Your task to perform on an android device: Go to ESPN.com Image 0: 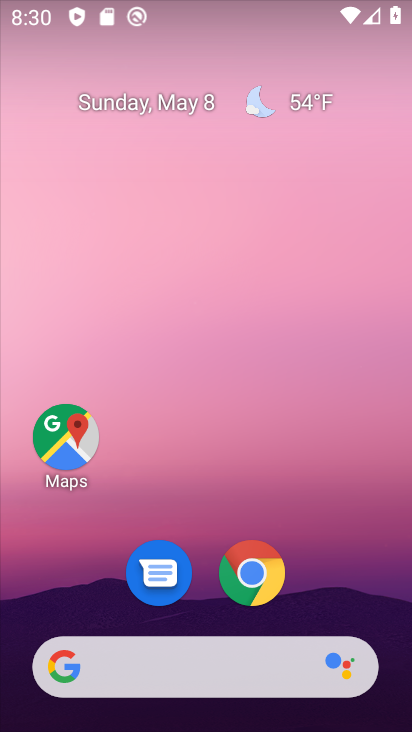
Step 0: click (247, 568)
Your task to perform on an android device: Go to ESPN.com Image 1: 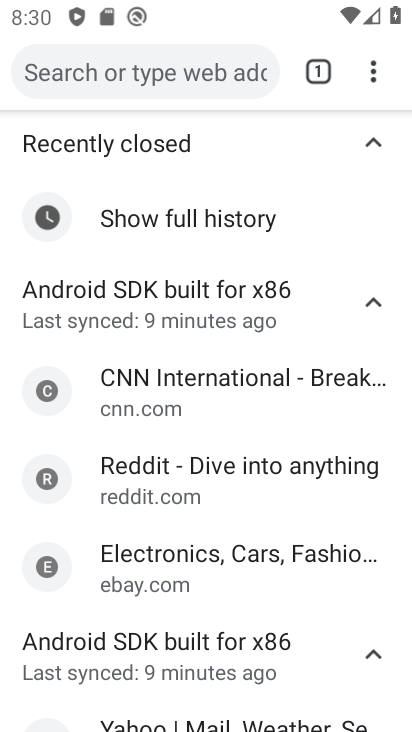
Step 1: click (196, 81)
Your task to perform on an android device: Go to ESPN.com Image 2: 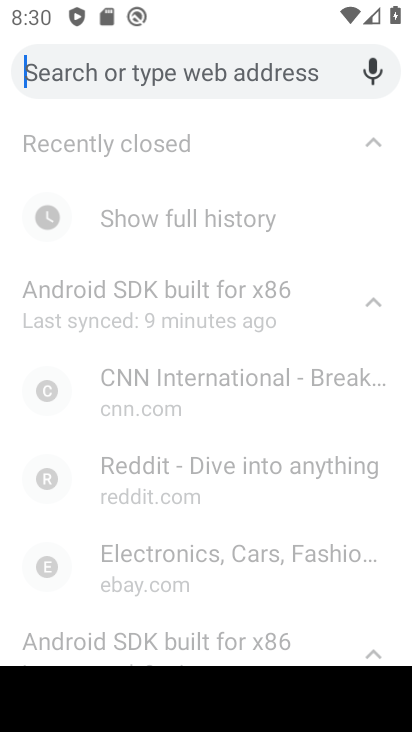
Step 2: type "ESPN.com"
Your task to perform on an android device: Go to ESPN.com Image 3: 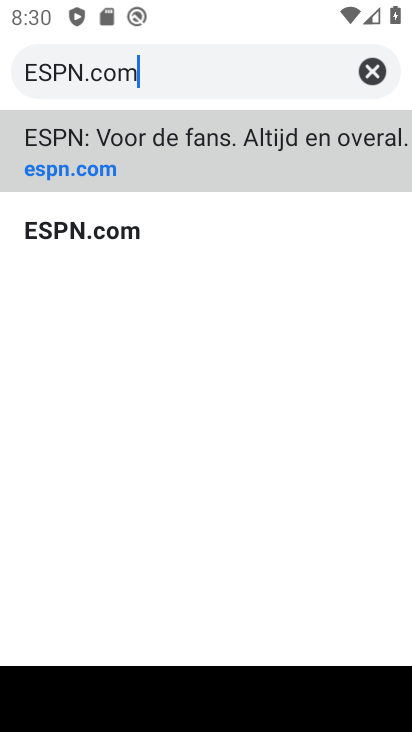
Step 3: click (87, 233)
Your task to perform on an android device: Go to ESPN.com Image 4: 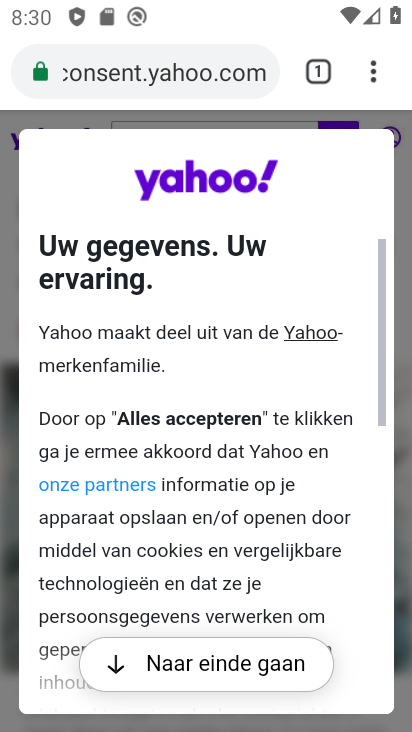
Step 4: task complete